Your task to perform on an android device: Open location settings Image 0: 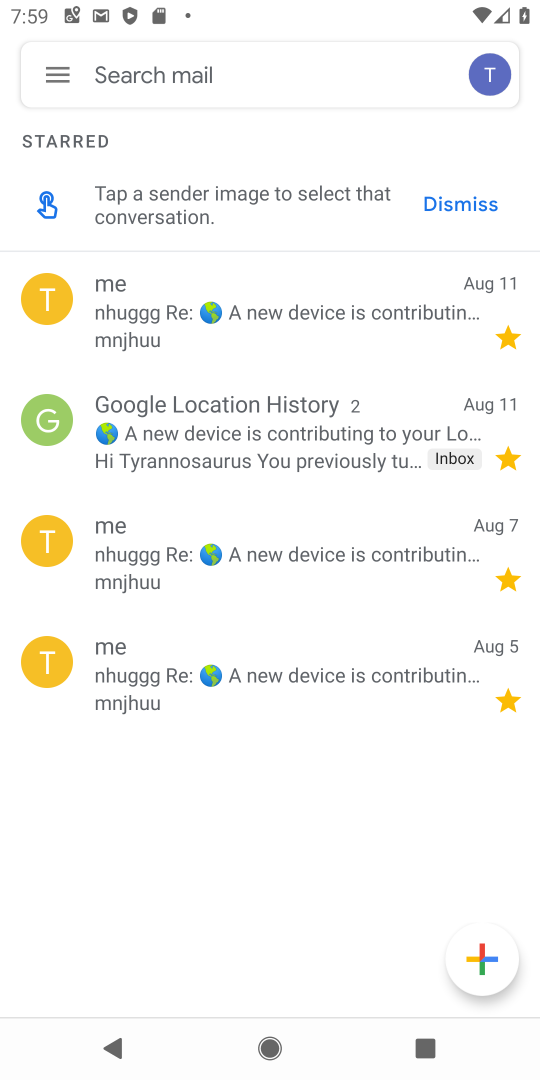
Step 0: press home button
Your task to perform on an android device: Open location settings Image 1: 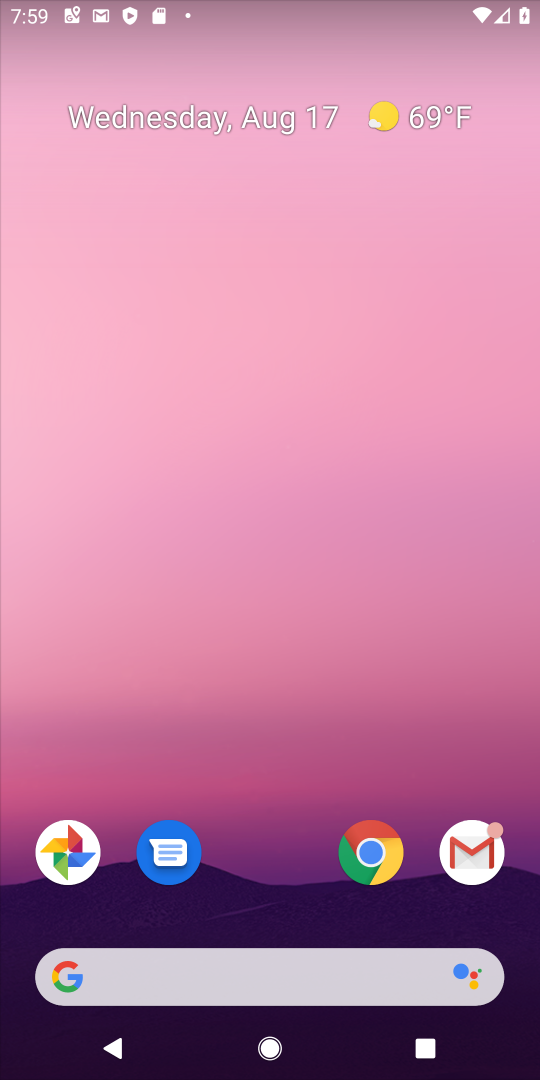
Step 1: drag from (269, 899) to (236, 385)
Your task to perform on an android device: Open location settings Image 2: 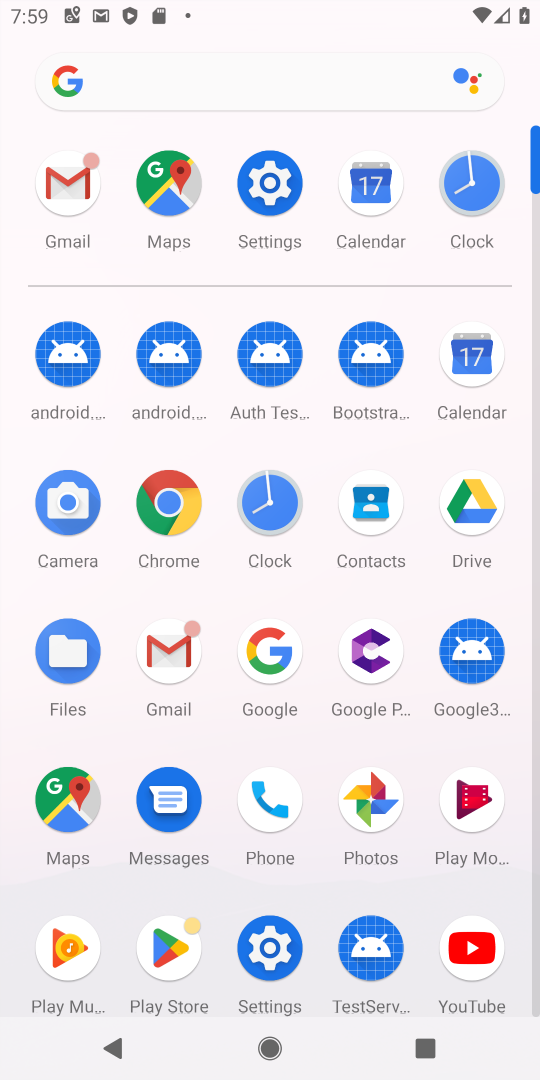
Step 2: click (267, 185)
Your task to perform on an android device: Open location settings Image 3: 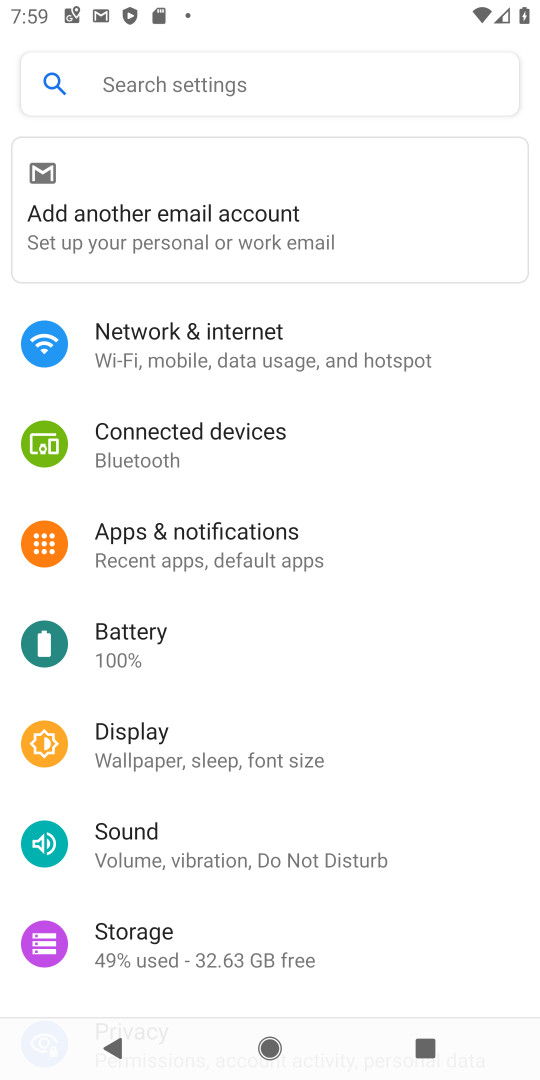
Step 3: drag from (240, 901) to (213, 594)
Your task to perform on an android device: Open location settings Image 4: 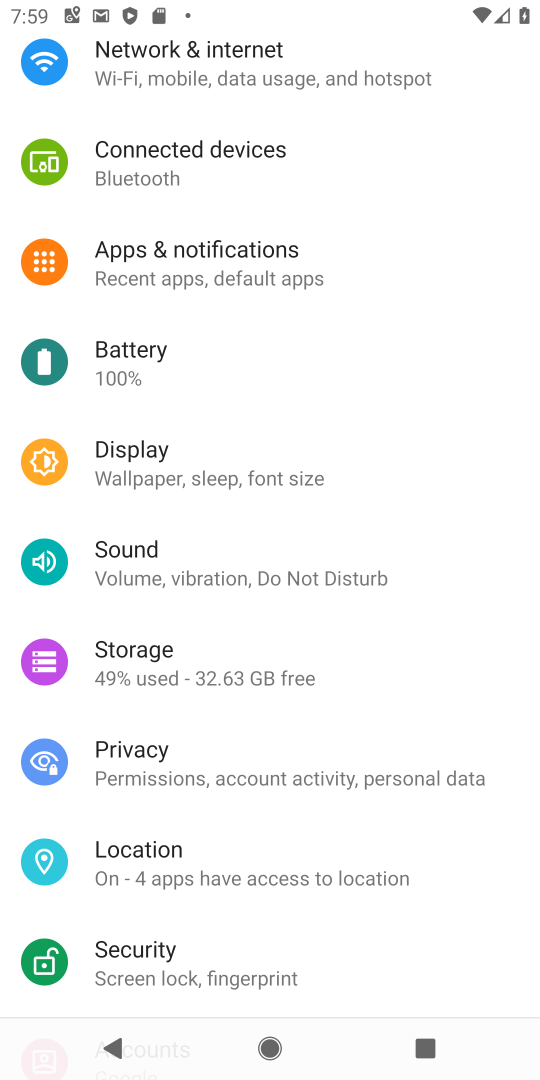
Step 4: click (148, 844)
Your task to perform on an android device: Open location settings Image 5: 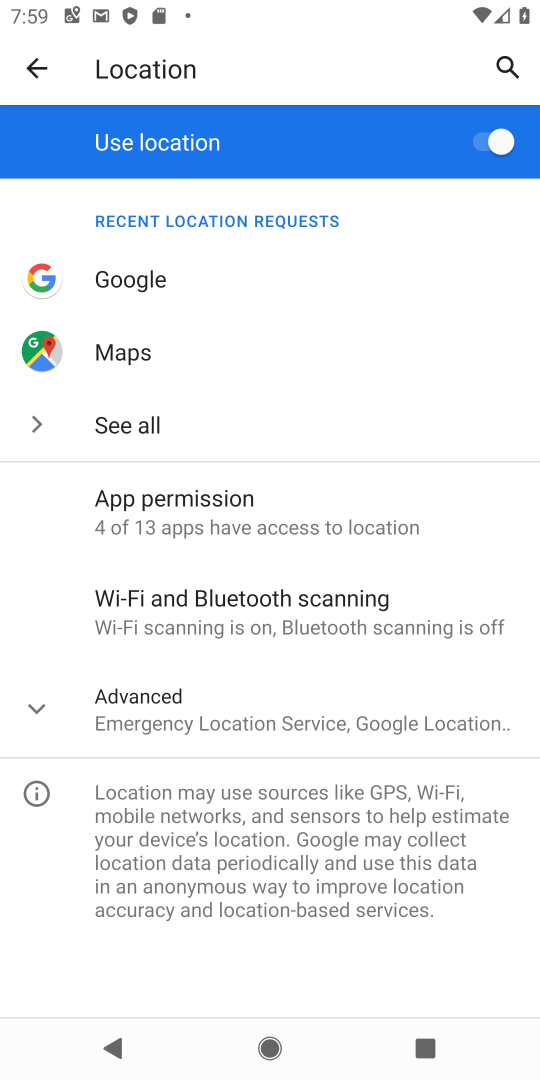
Step 5: task complete